Your task to perform on an android device: turn on wifi Image 0: 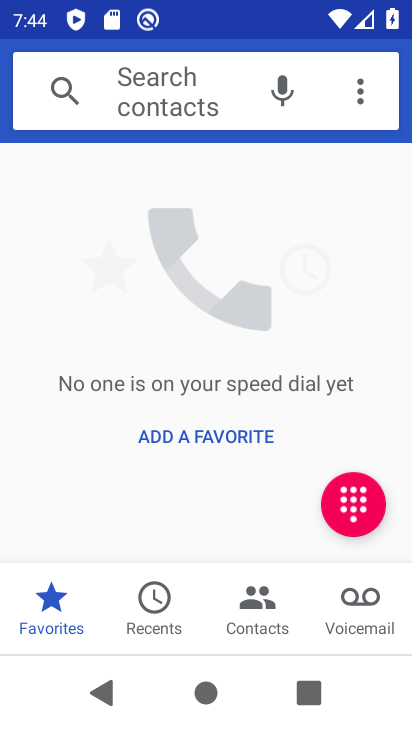
Step 0: drag from (257, 406) to (263, 178)
Your task to perform on an android device: turn on wifi Image 1: 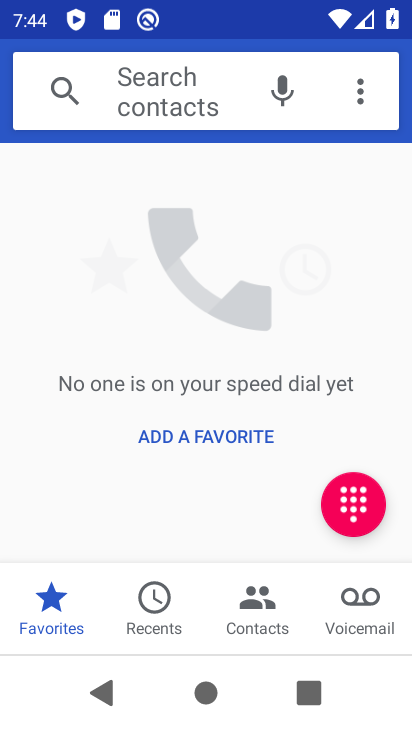
Step 1: press home button
Your task to perform on an android device: turn on wifi Image 2: 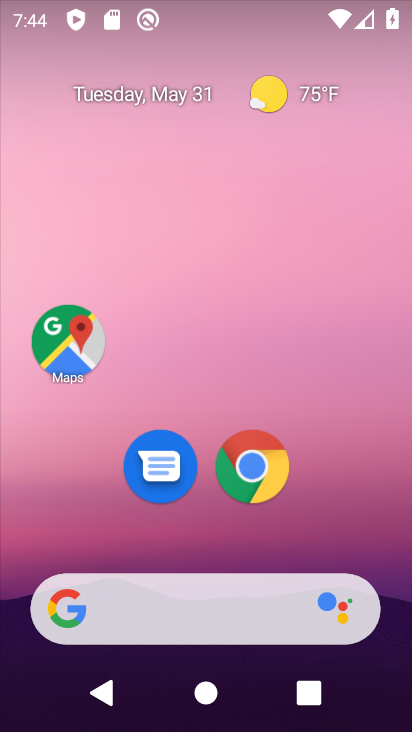
Step 2: drag from (217, 564) to (254, 132)
Your task to perform on an android device: turn on wifi Image 3: 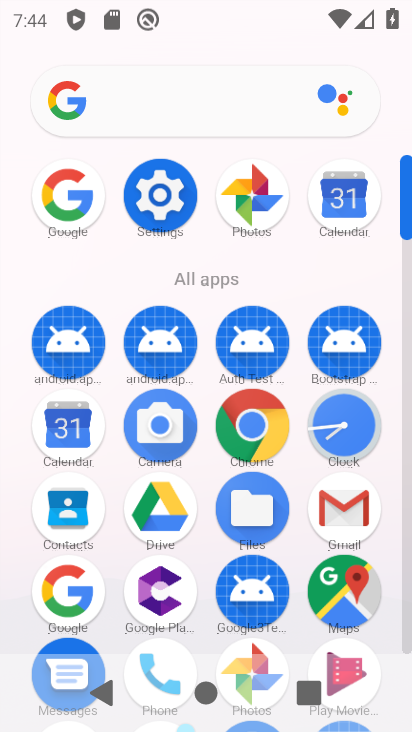
Step 3: click (172, 182)
Your task to perform on an android device: turn on wifi Image 4: 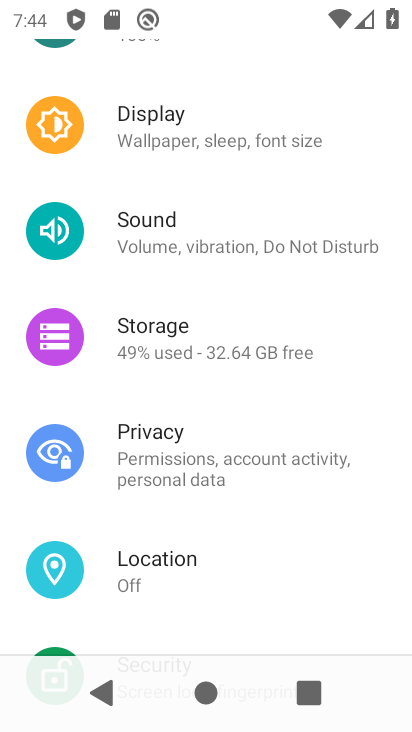
Step 4: drag from (267, 149) to (323, 614)
Your task to perform on an android device: turn on wifi Image 5: 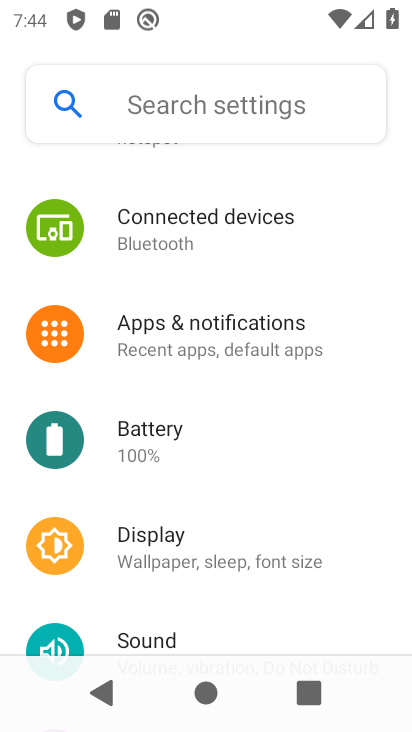
Step 5: drag from (228, 257) to (410, 625)
Your task to perform on an android device: turn on wifi Image 6: 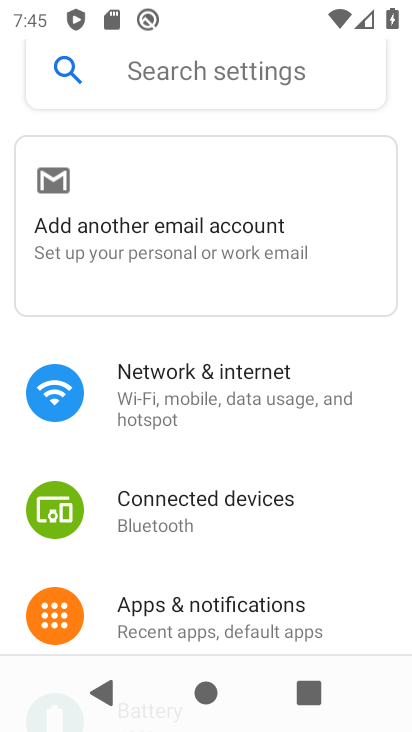
Step 6: click (212, 380)
Your task to perform on an android device: turn on wifi Image 7: 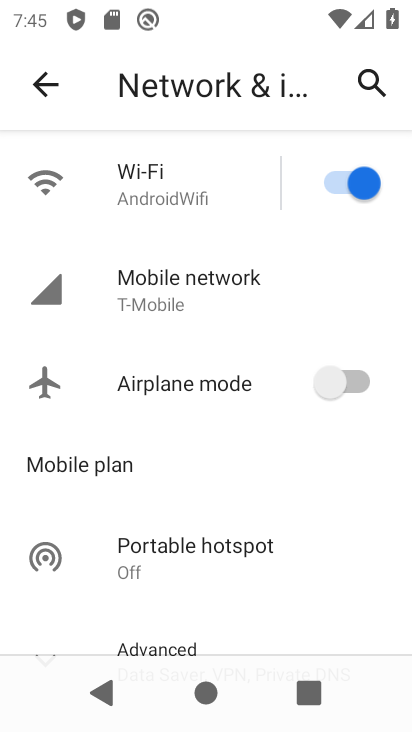
Step 7: task complete